Your task to perform on an android device: open wifi settings Image 0: 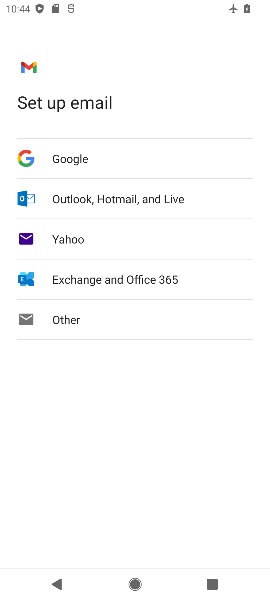
Step 0: press home button
Your task to perform on an android device: open wifi settings Image 1: 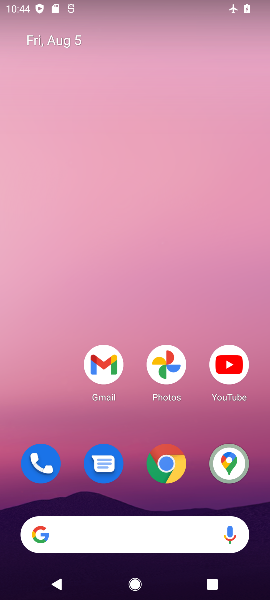
Step 1: drag from (174, 492) to (155, 83)
Your task to perform on an android device: open wifi settings Image 2: 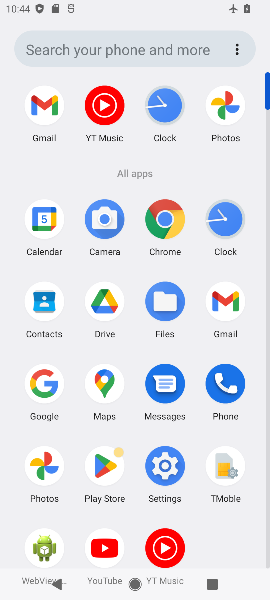
Step 2: click (160, 468)
Your task to perform on an android device: open wifi settings Image 3: 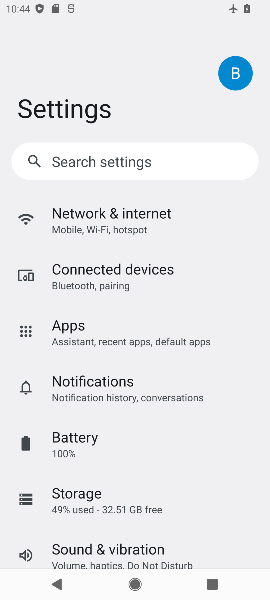
Step 3: click (103, 209)
Your task to perform on an android device: open wifi settings Image 4: 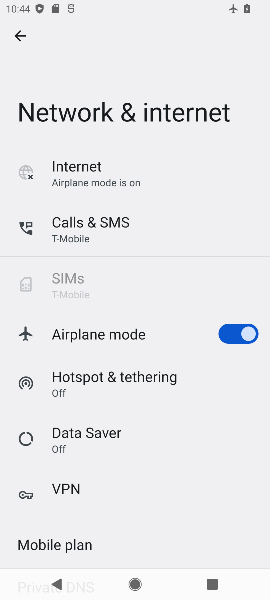
Step 4: click (93, 166)
Your task to perform on an android device: open wifi settings Image 5: 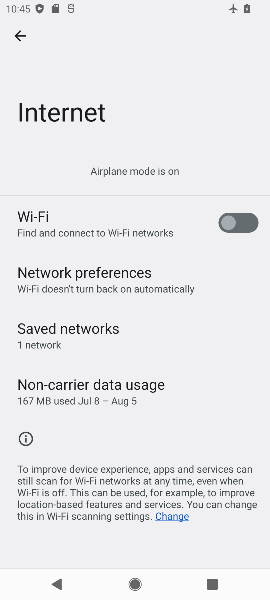
Step 5: task complete